Your task to perform on an android device: allow cookies in the chrome app Image 0: 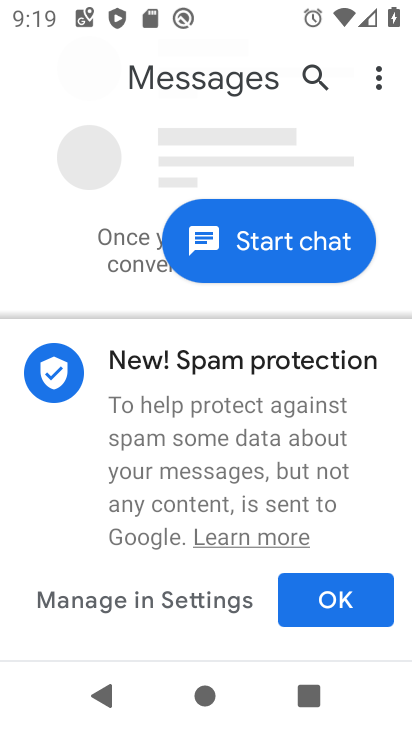
Step 0: press back button
Your task to perform on an android device: allow cookies in the chrome app Image 1: 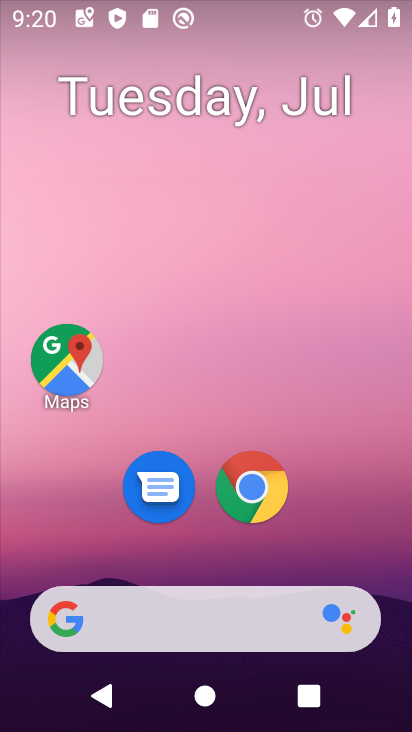
Step 1: click (266, 484)
Your task to perform on an android device: allow cookies in the chrome app Image 2: 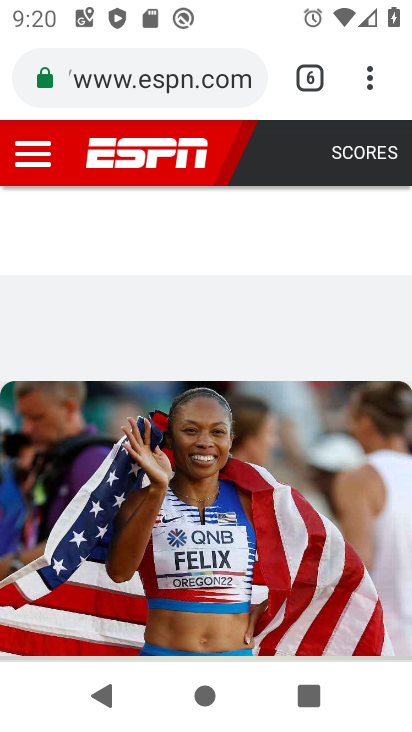
Step 2: drag from (371, 72) to (107, 557)
Your task to perform on an android device: allow cookies in the chrome app Image 3: 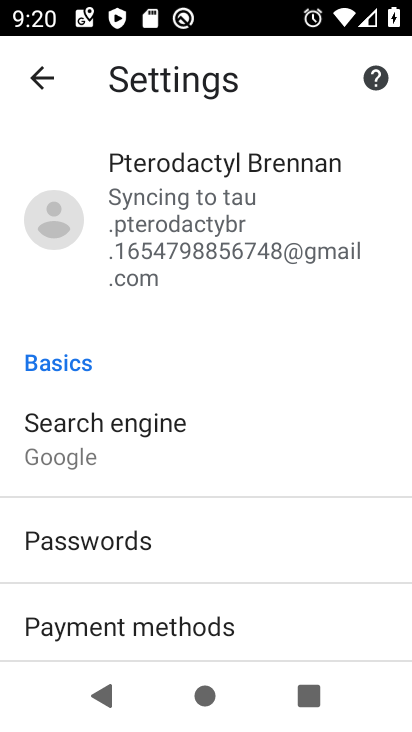
Step 3: drag from (135, 618) to (228, 146)
Your task to perform on an android device: allow cookies in the chrome app Image 4: 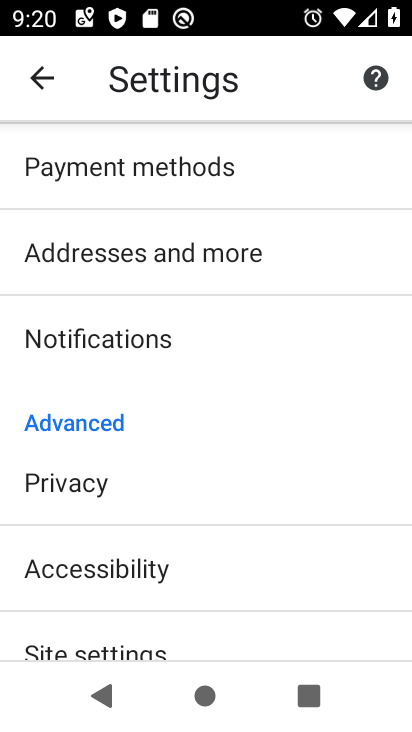
Step 4: drag from (85, 555) to (139, 164)
Your task to perform on an android device: allow cookies in the chrome app Image 5: 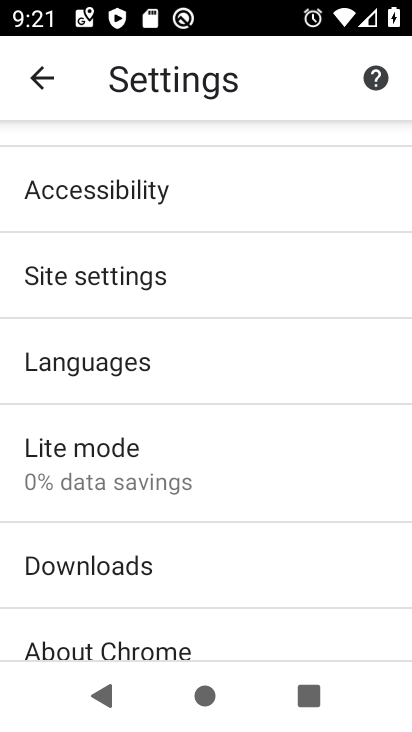
Step 5: click (150, 287)
Your task to perform on an android device: allow cookies in the chrome app Image 6: 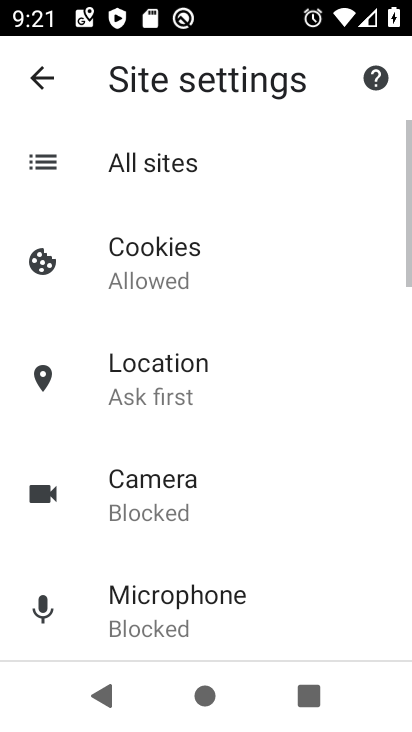
Step 6: click (205, 289)
Your task to perform on an android device: allow cookies in the chrome app Image 7: 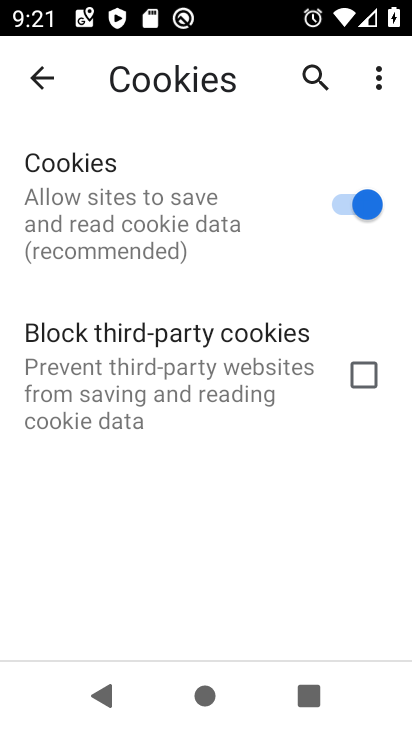
Step 7: task complete